Your task to perform on an android device: Open calendar and show me the first week of next month Image 0: 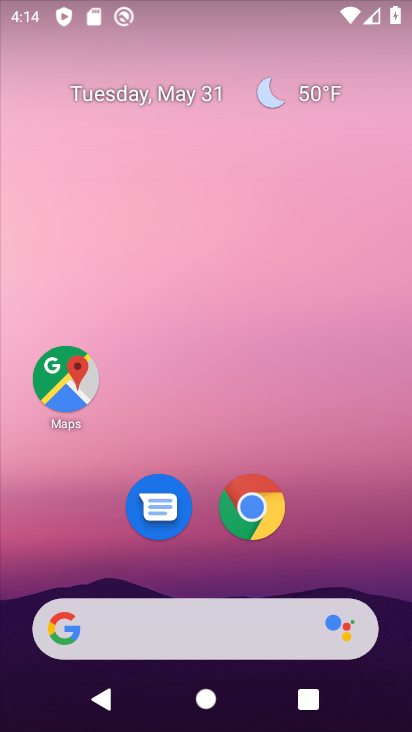
Step 0: drag from (310, 501) to (291, 64)
Your task to perform on an android device: Open calendar and show me the first week of next month Image 1: 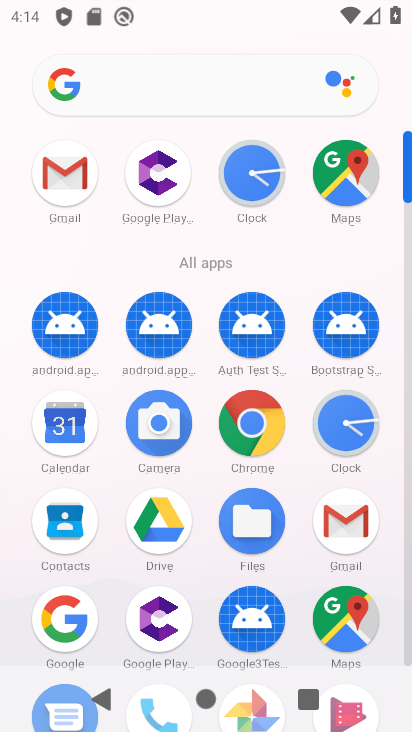
Step 1: click (77, 419)
Your task to perform on an android device: Open calendar and show me the first week of next month Image 2: 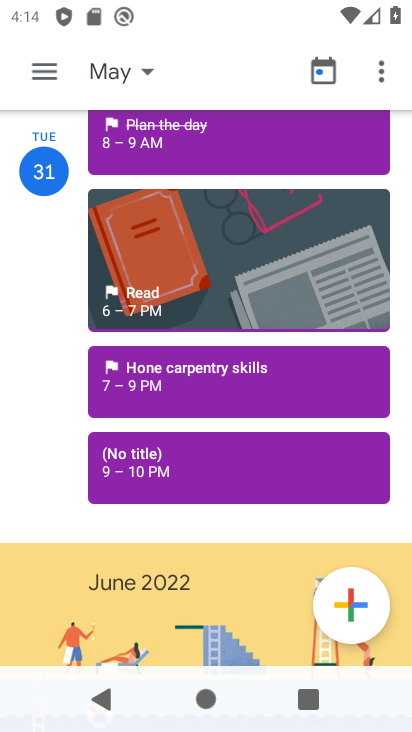
Step 2: click (36, 68)
Your task to perform on an android device: Open calendar and show me the first week of next month Image 3: 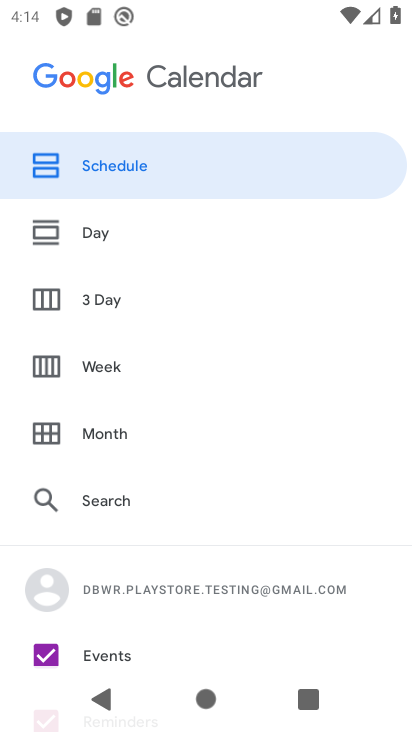
Step 3: click (38, 362)
Your task to perform on an android device: Open calendar and show me the first week of next month Image 4: 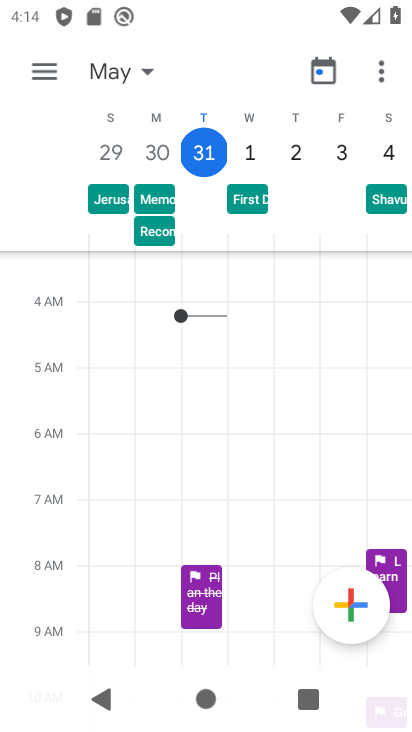
Step 4: task complete